Your task to perform on an android device: Open Google Chrome and click the shortcut for Amazon.com Image 0: 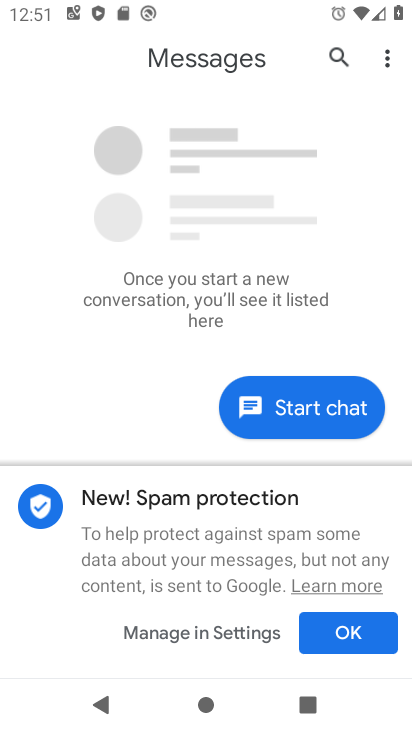
Step 0: press home button
Your task to perform on an android device: Open Google Chrome and click the shortcut for Amazon.com Image 1: 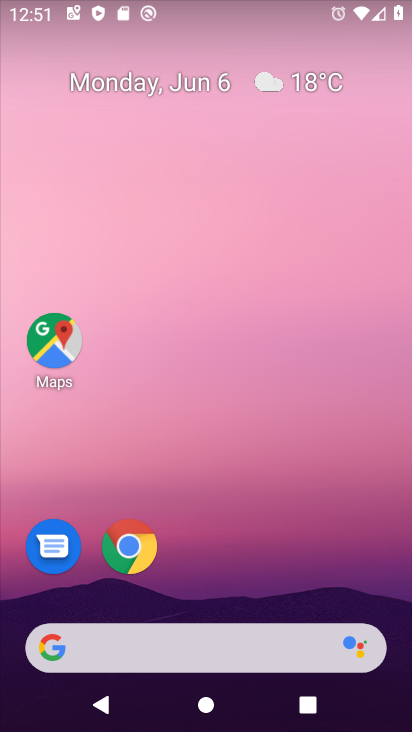
Step 1: click (143, 540)
Your task to perform on an android device: Open Google Chrome and click the shortcut for Amazon.com Image 2: 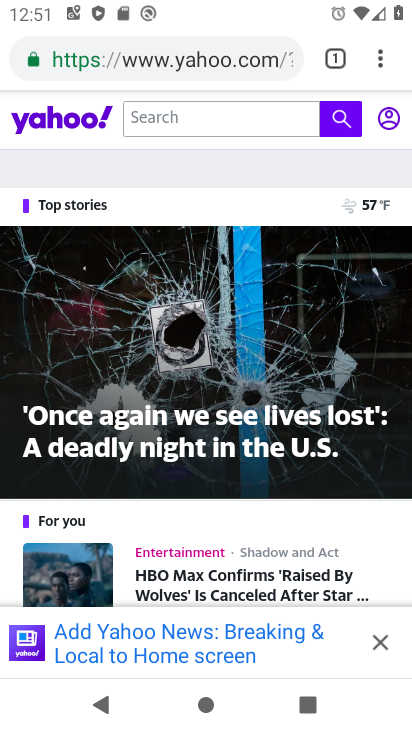
Step 2: click (341, 52)
Your task to perform on an android device: Open Google Chrome and click the shortcut for Amazon.com Image 3: 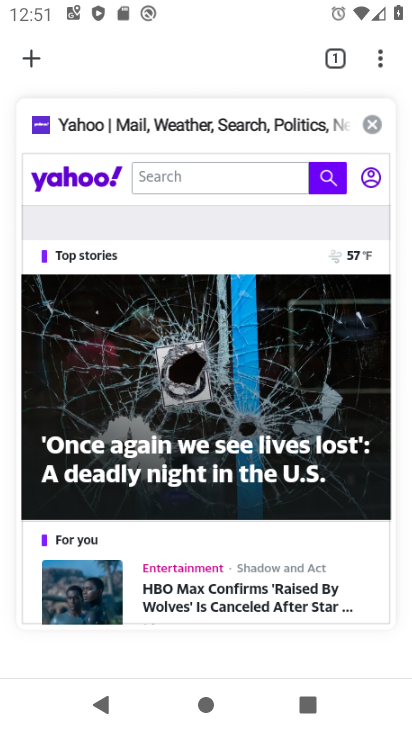
Step 3: click (30, 53)
Your task to perform on an android device: Open Google Chrome and click the shortcut for Amazon.com Image 4: 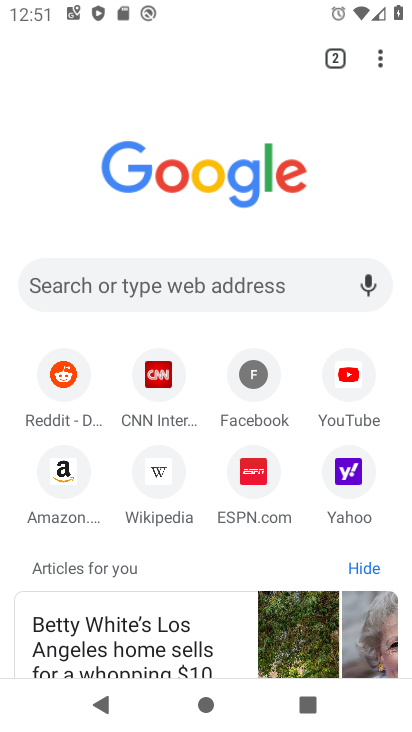
Step 4: click (56, 467)
Your task to perform on an android device: Open Google Chrome and click the shortcut for Amazon.com Image 5: 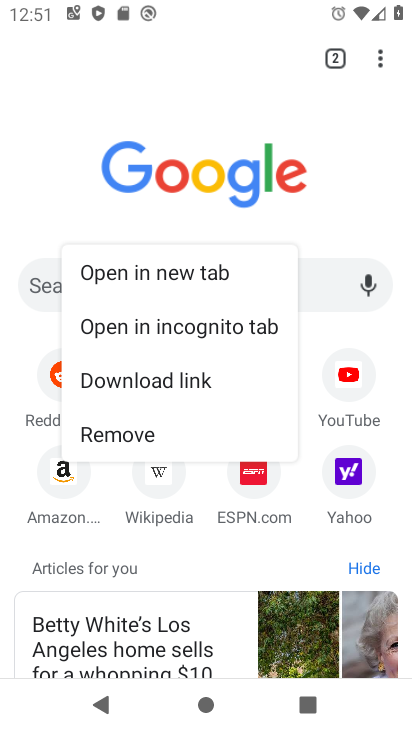
Step 5: click (68, 481)
Your task to perform on an android device: Open Google Chrome and click the shortcut for Amazon.com Image 6: 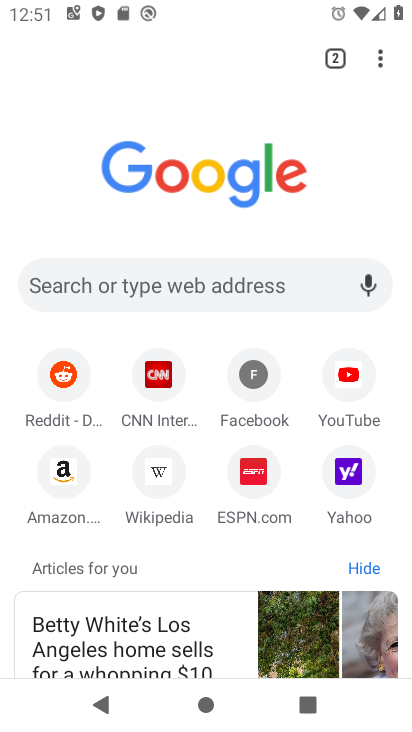
Step 6: click (68, 481)
Your task to perform on an android device: Open Google Chrome and click the shortcut for Amazon.com Image 7: 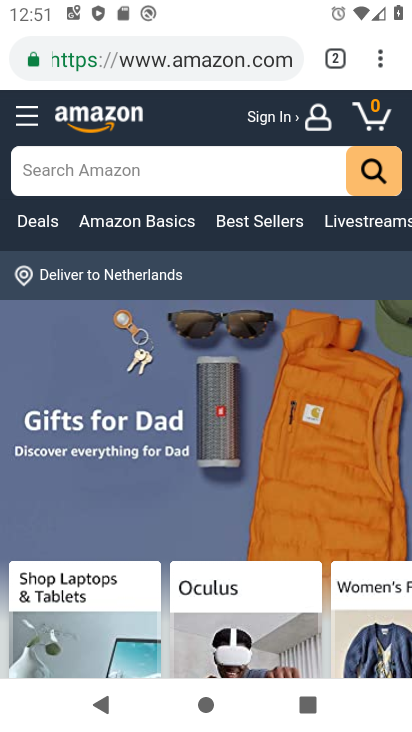
Step 7: task complete